Your task to perform on an android device: turn pop-ups on in chrome Image 0: 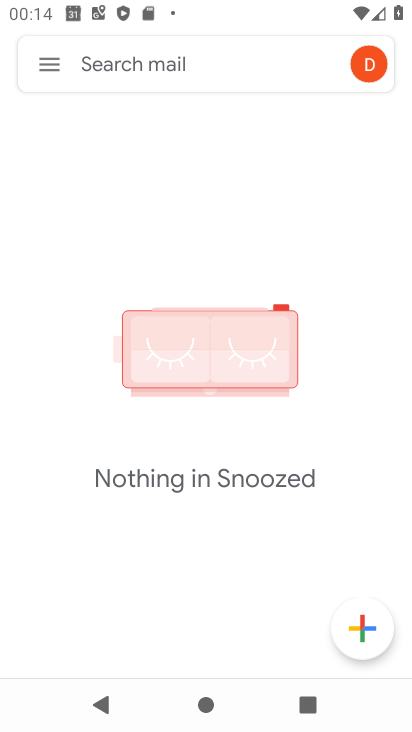
Step 0: press home button
Your task to perform on an android device: turn pop-ups on in chrome Image 1: 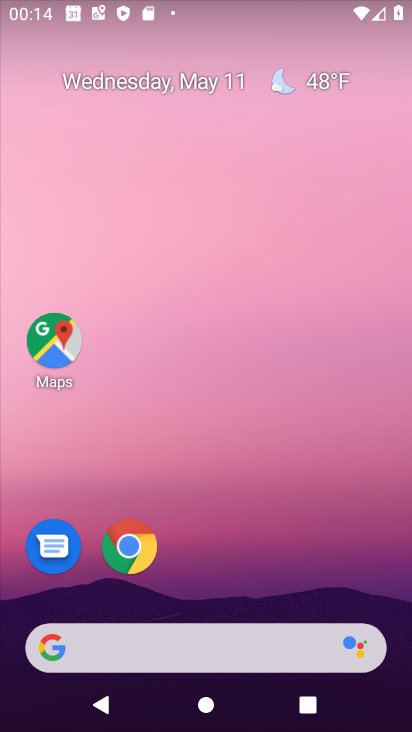
Step 1: click (156, 555)
Your task to perform on an android device: turn pop-ups on in chrome Image 2: 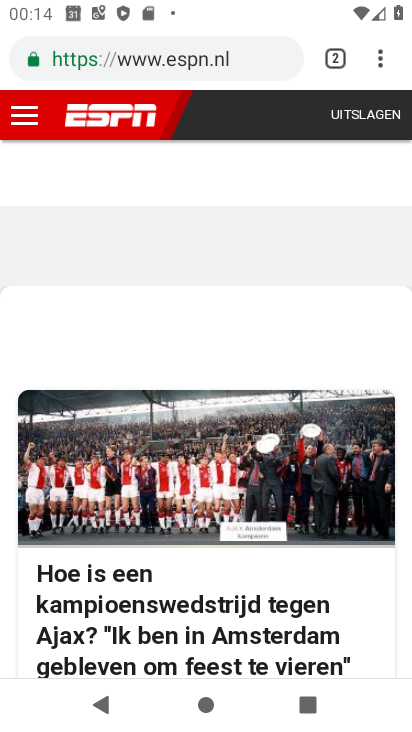
Step 2: drag from (385, 56) to (198, 580)
Your task to perform on an android device: turn pop-ups on in chrome Image 3: 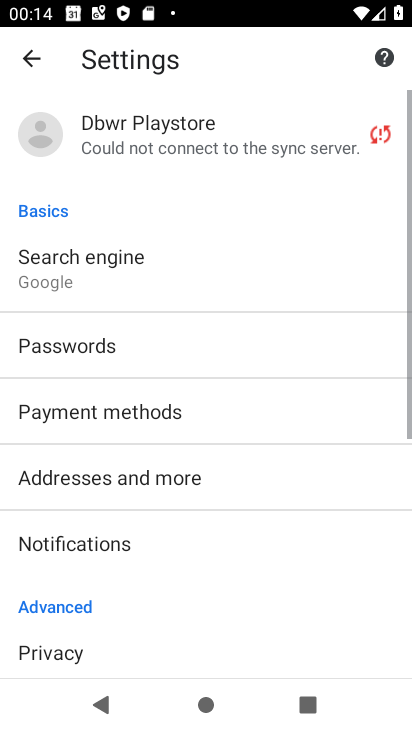
Step 3: drag from (168, 531) to (222, 231)
Your task to perform on an android device: turn pop-ups on in chrome Image 4: 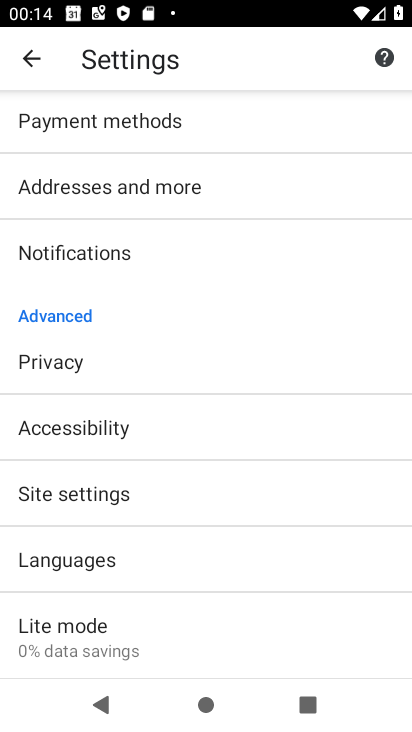
Step 4: drag from (180, 528) to (190, 364)
Your task to perform on an android device: turn pop-ups on in chrome Image 5: 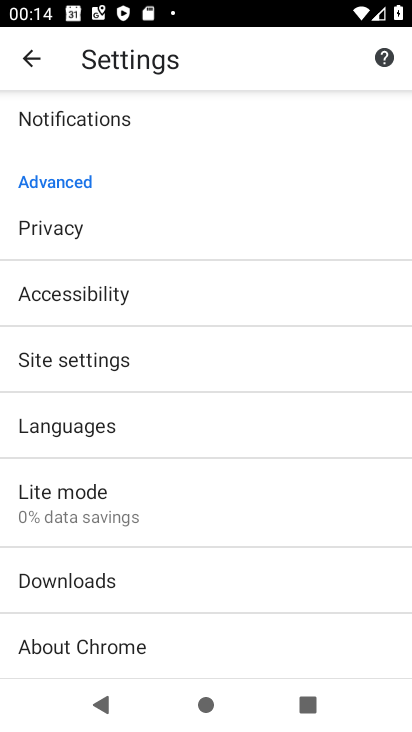
Step 5: click (124, 362)
Your task to perform on an android device: turn pop-ups on in chrome Image 6: 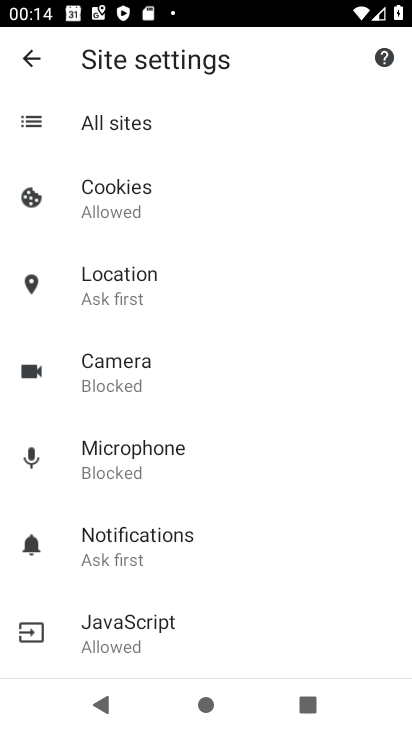
Step 6: drag from (197, 587) to (215, 326)
Your task to perform on an android device: turn pop-ups on in chrome Image 7: 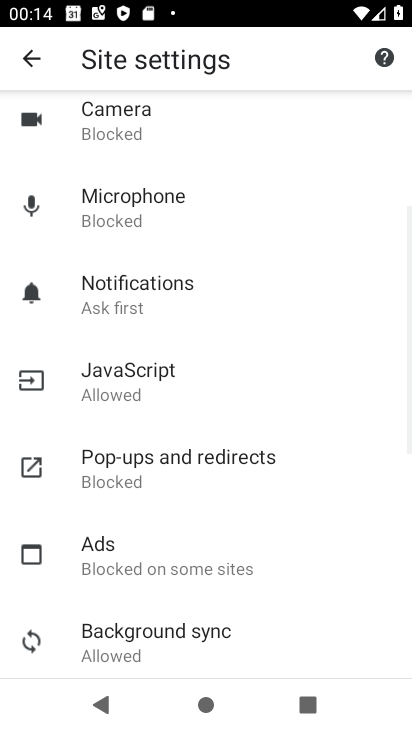
Step 7: click (203, 447)
Your task to perform on an android device: turn pop-ups on in chrome Image 8: 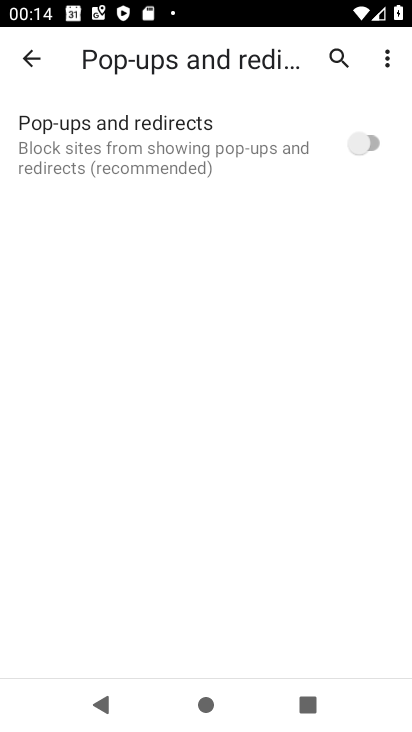
Step 8: click (375, 147)
Your task to perform on an android device: turn pop-ups on in chrome Image 9: 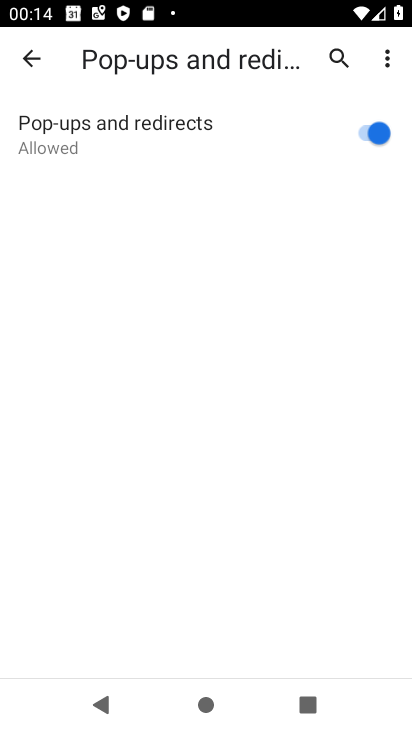
Step 9: task complete